Your task to perform on an android device: change timer sound Image 0: 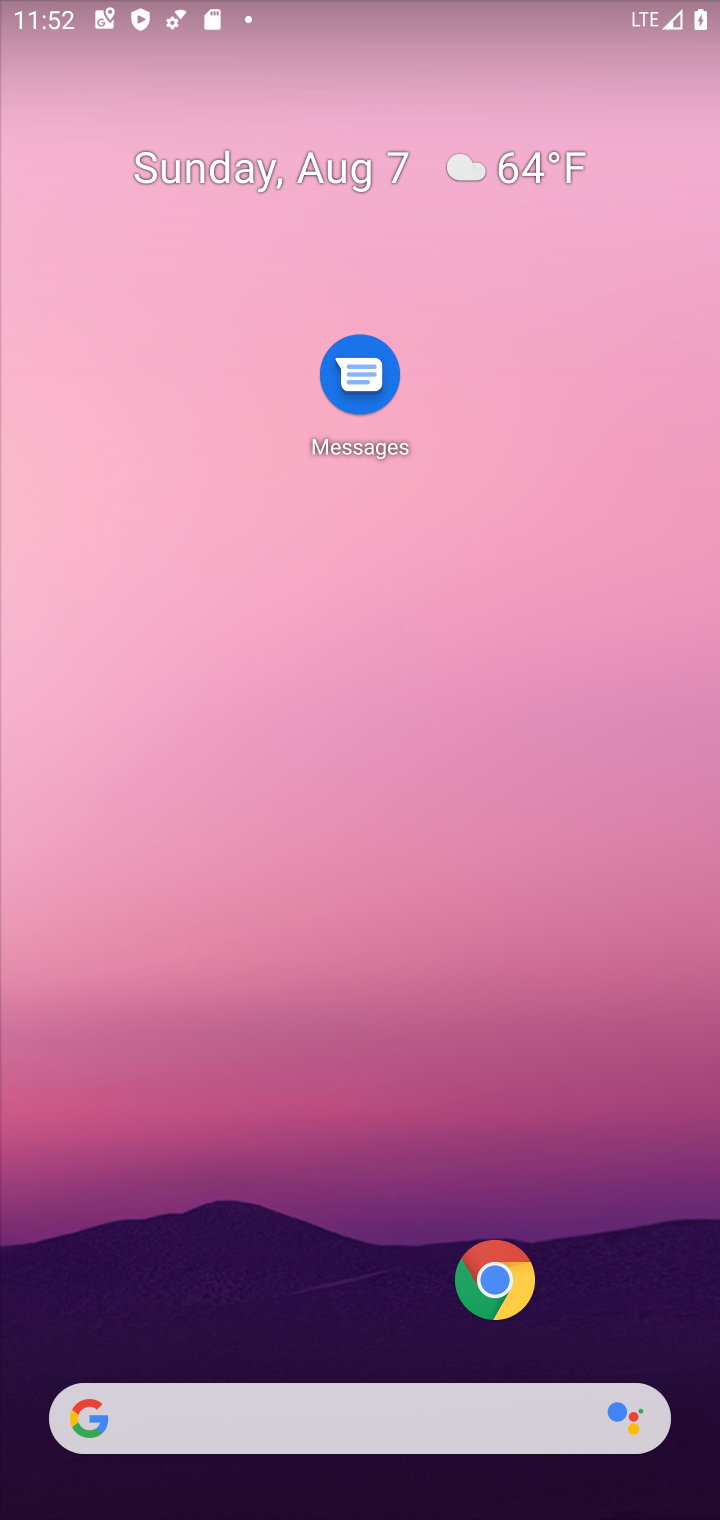
Step 0: drag from (450, 1330) to (522, 238)
Your task to perform on an android device: change timer sound Image 1: 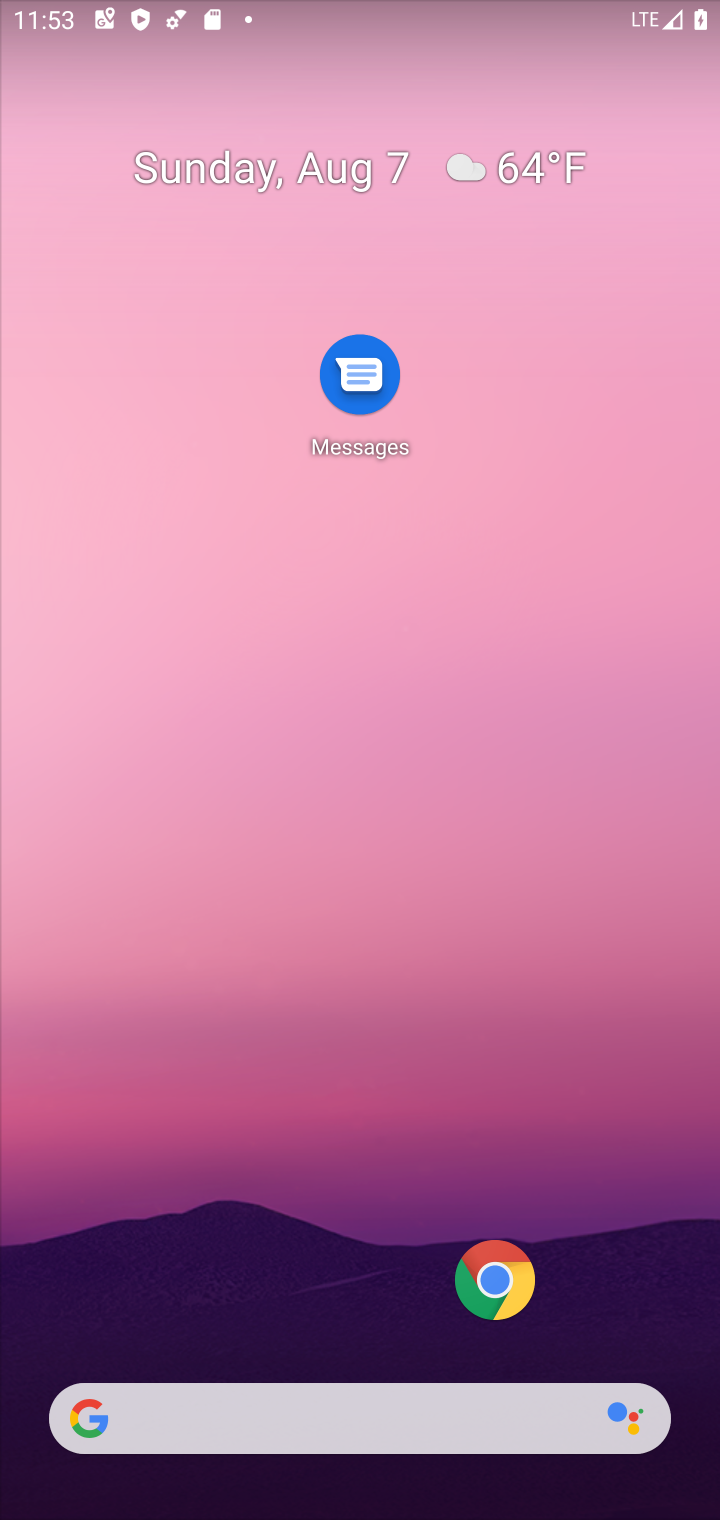
Step 1: drag from (291, 1300) to (451, 439)
Your task to perform on an android device: change timer sound Image 2: 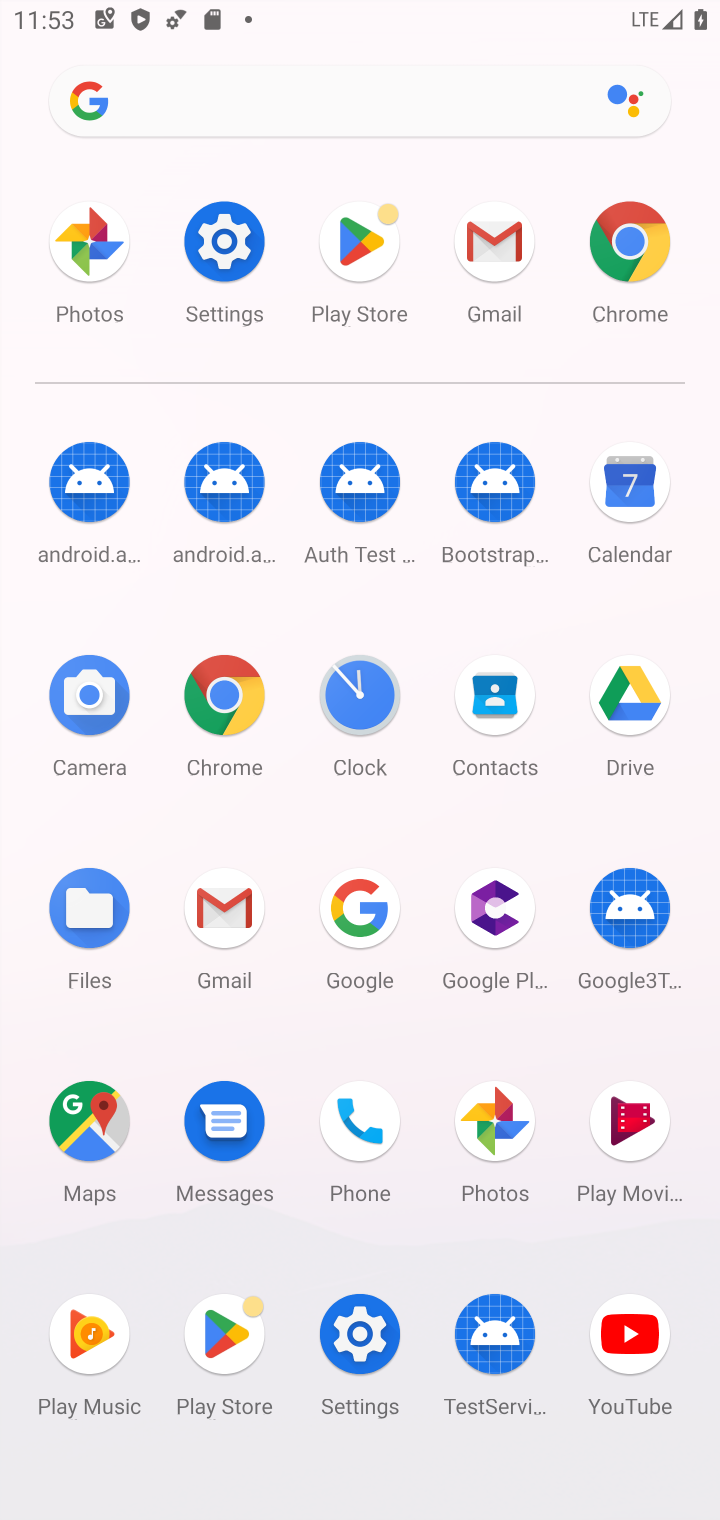
Step 2: click (361, 687)
Your task to perform on an android device: change timer sound Image 3: 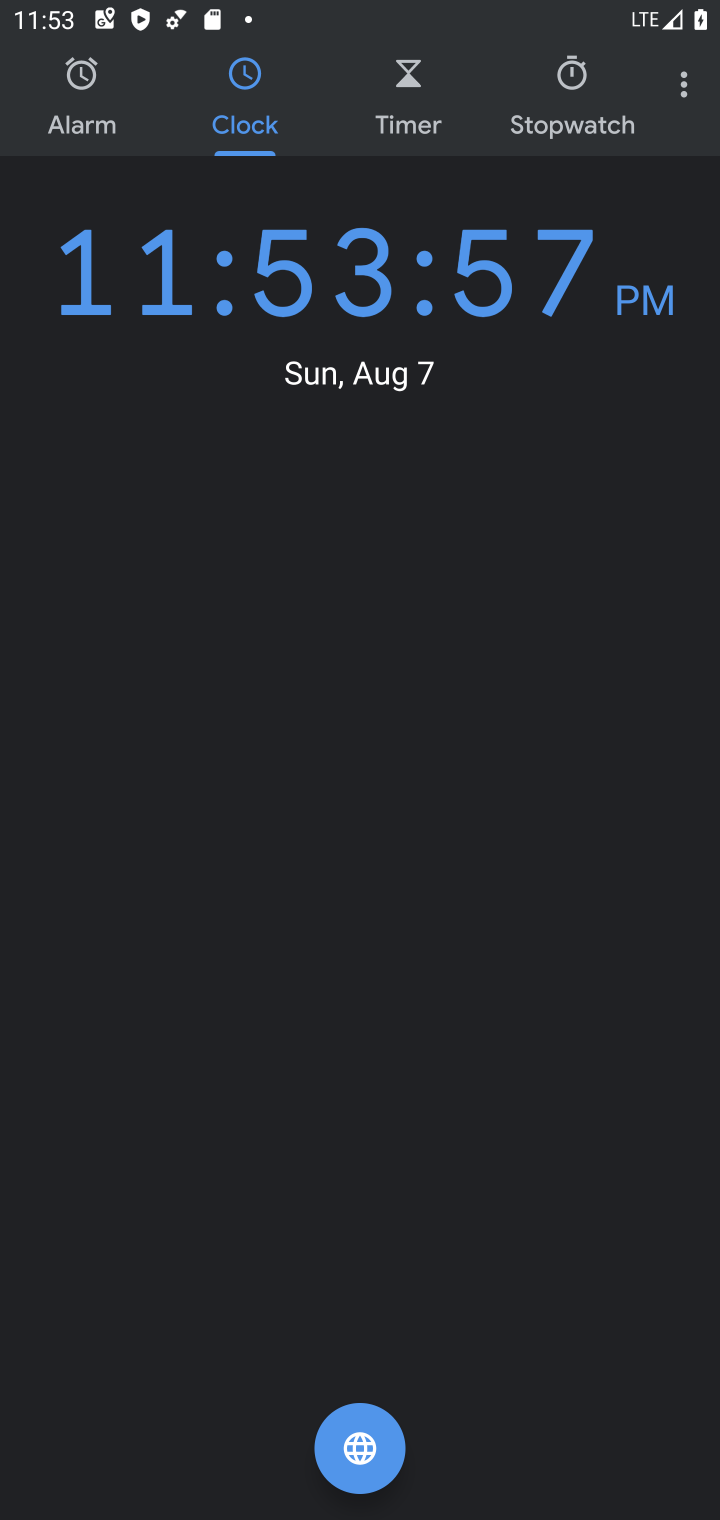
Step 3: click (679, 72)
Your task to perform on an android device: change timer sound Image 4: 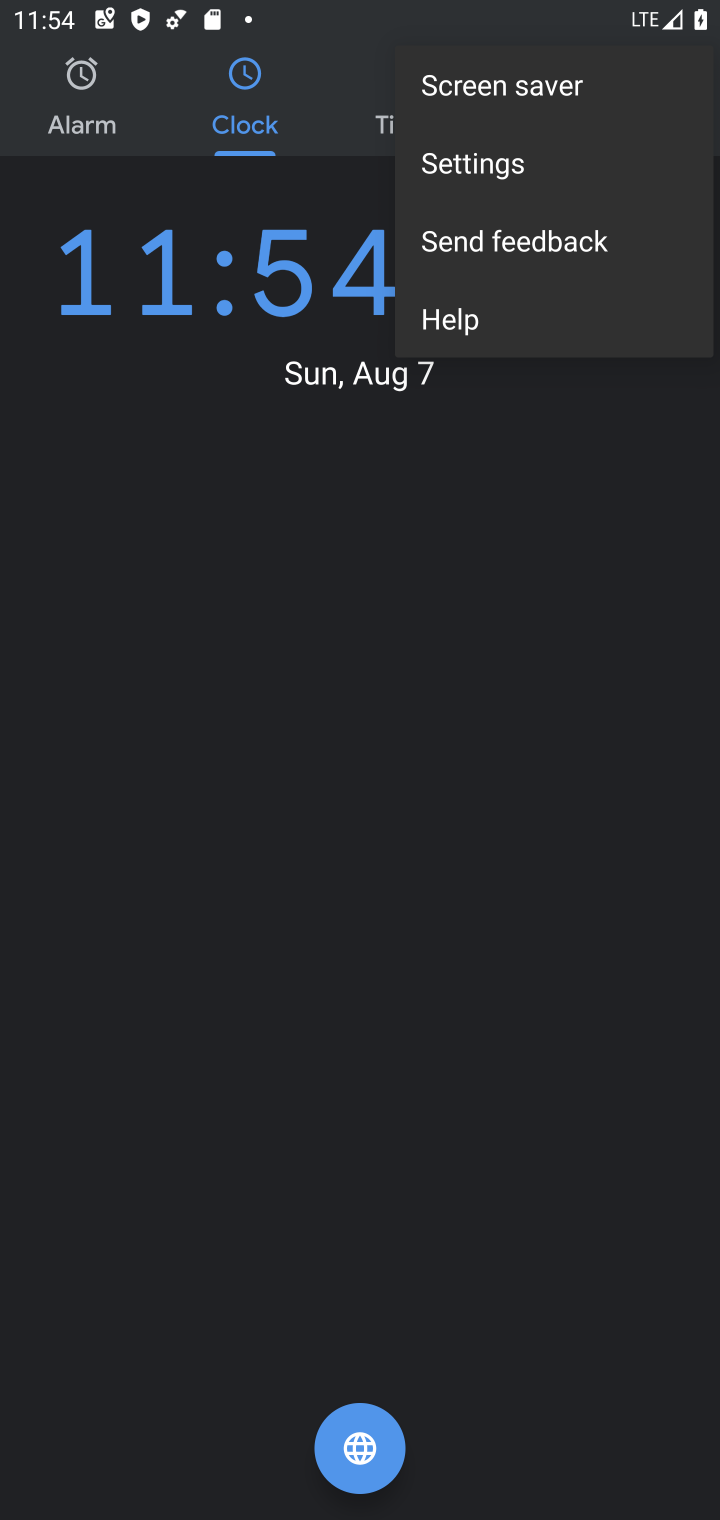
Step 4: click (493, 164)
Your task to perform on an android device: change timer sound Image 5: 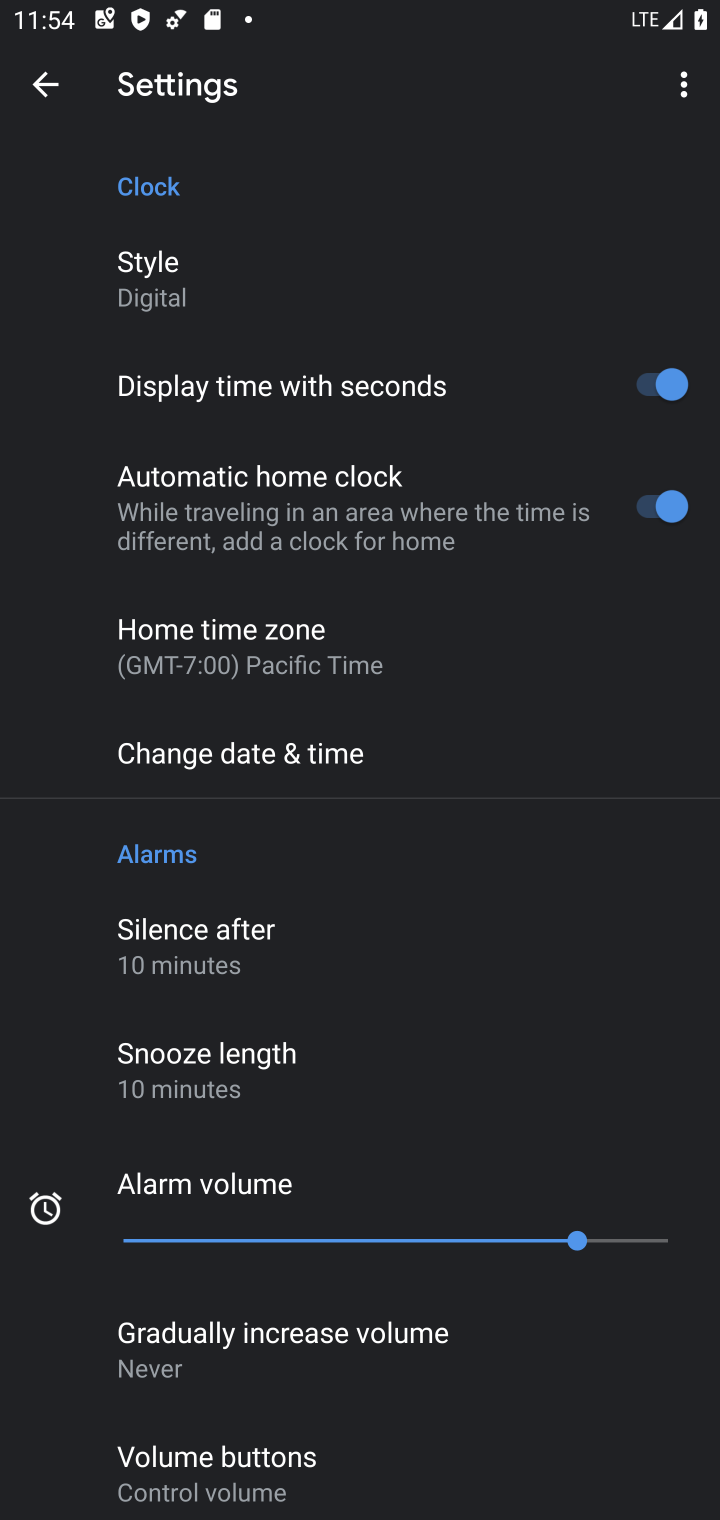
Step 5: drag from (302, 1365) to (489, 251)
Your task to perform on an android device: change timer sound Image 6: 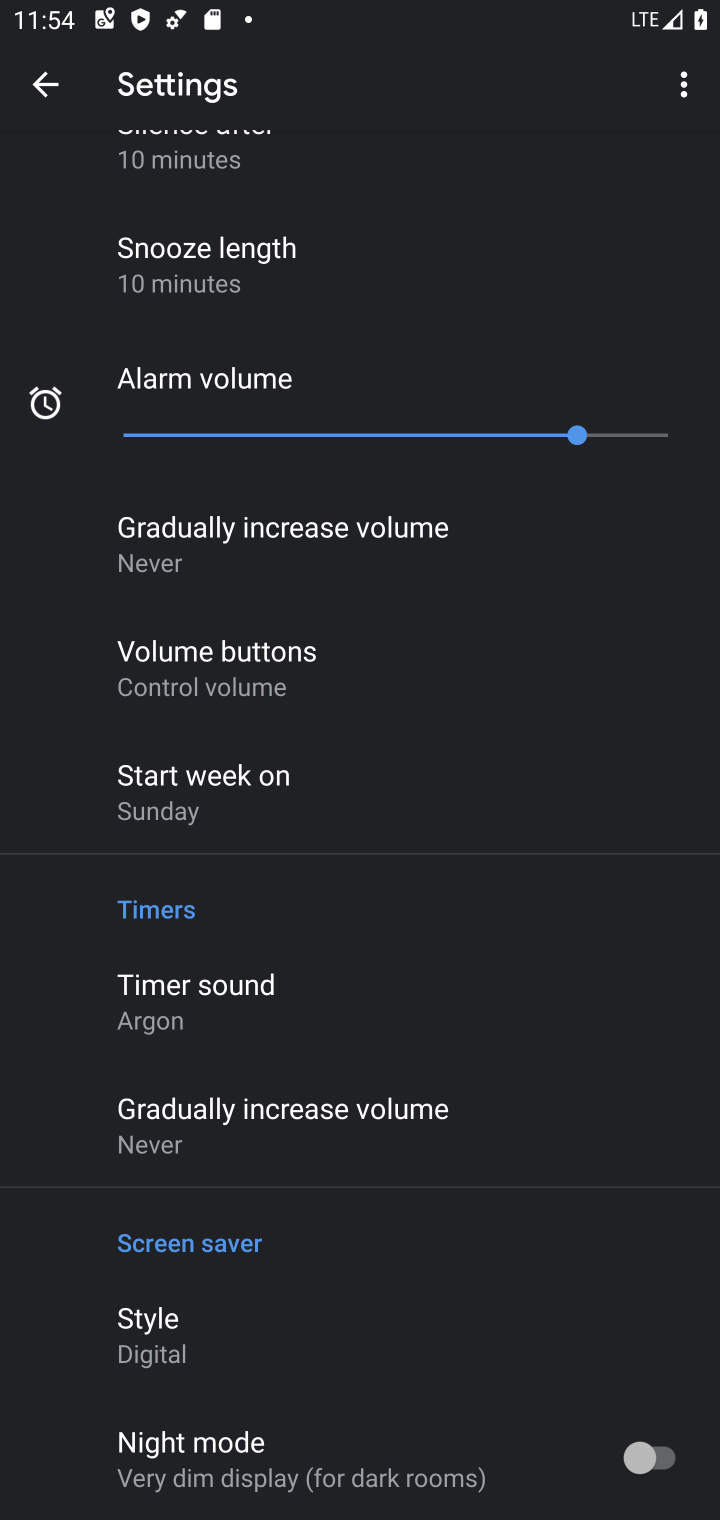
Step 6: click (269, 1011)
Your task to perform on an android device: change timer sound Image 7: 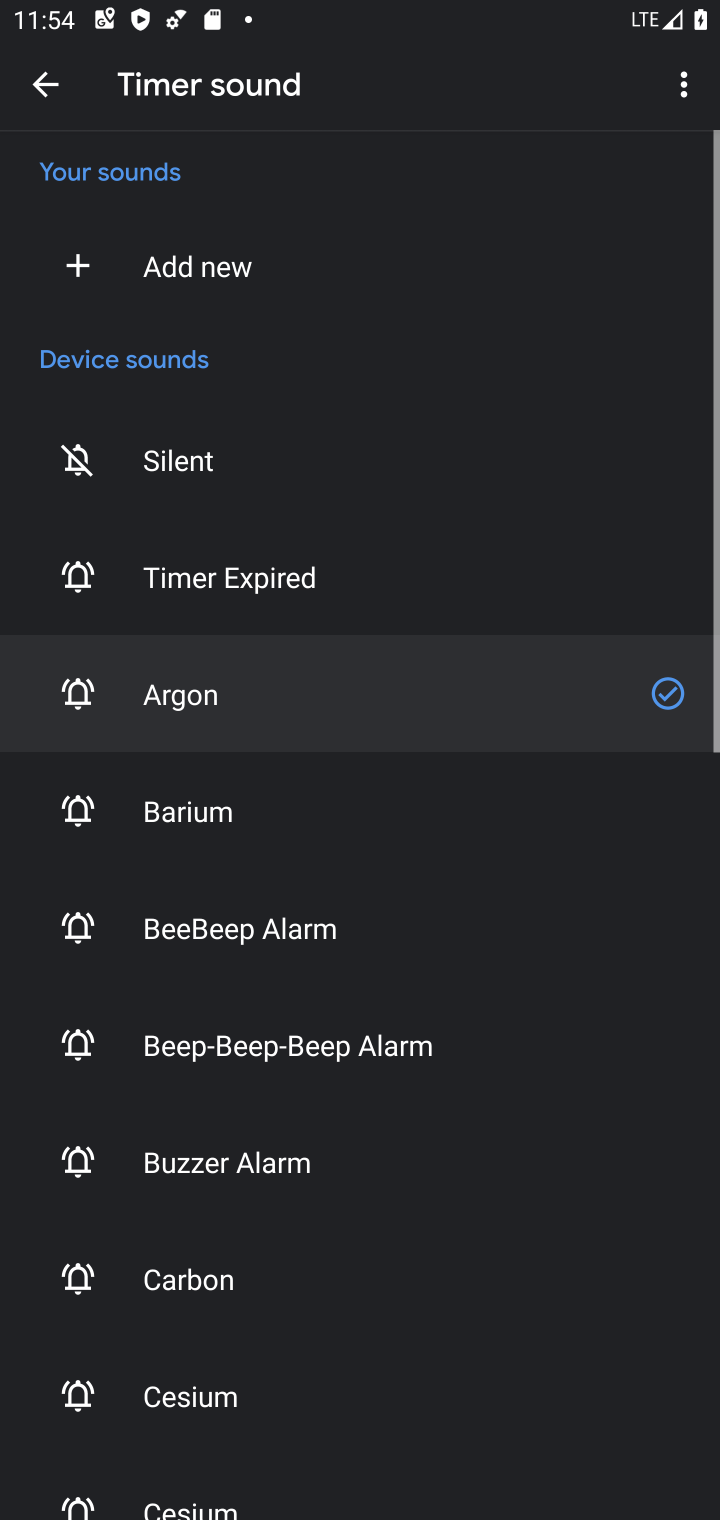
Step 7: click (249, 826)
Your task to perform on an android device: change timer sound Image 8: 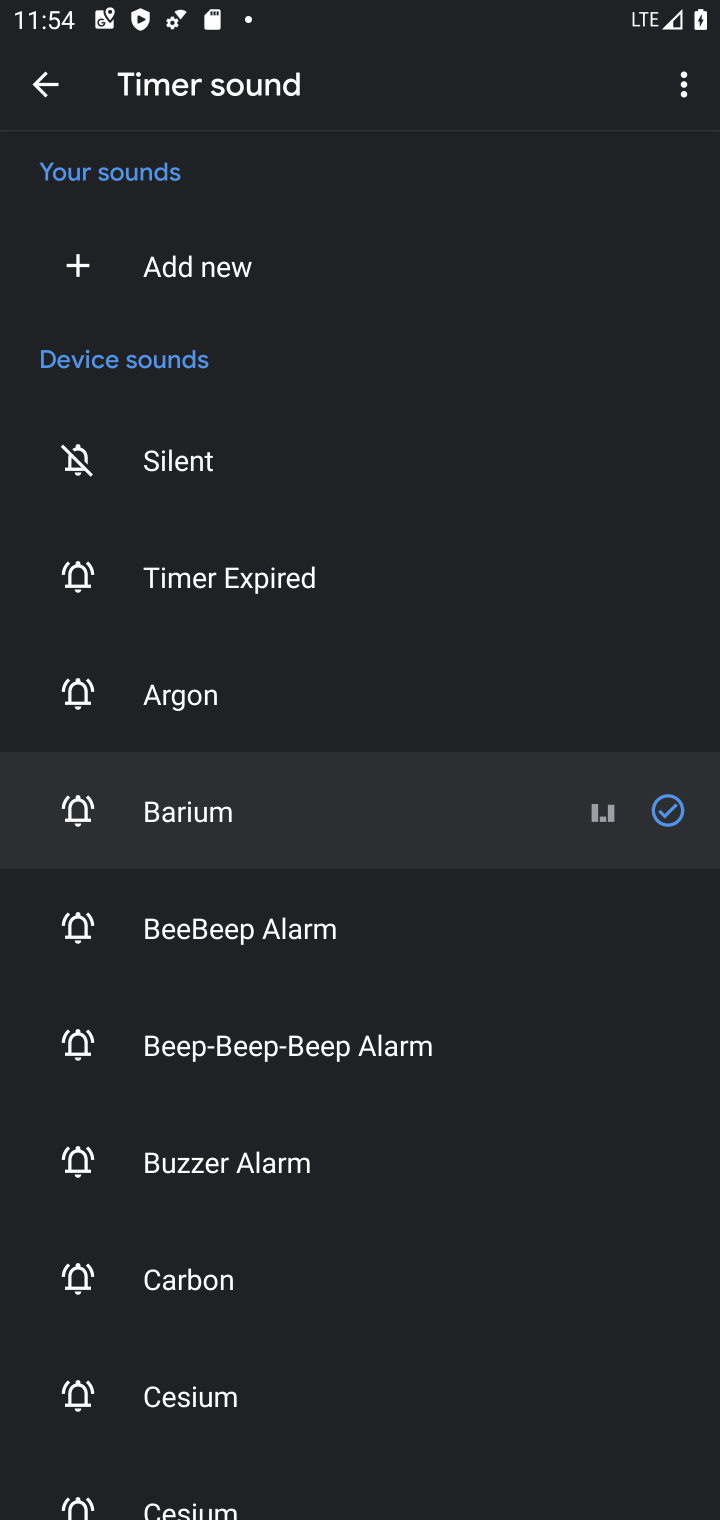
Step 8: task complete